Your task to perform on an android device: Open the contacts app Image 0: 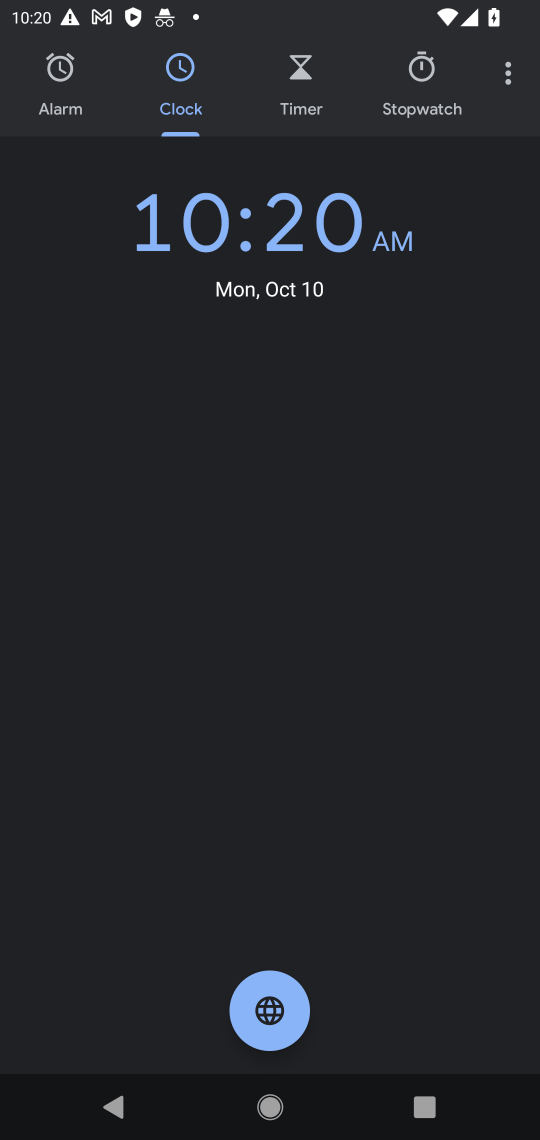
Step 0: press home button
Your task to perform on an android device: Open the contacts app Image 1: 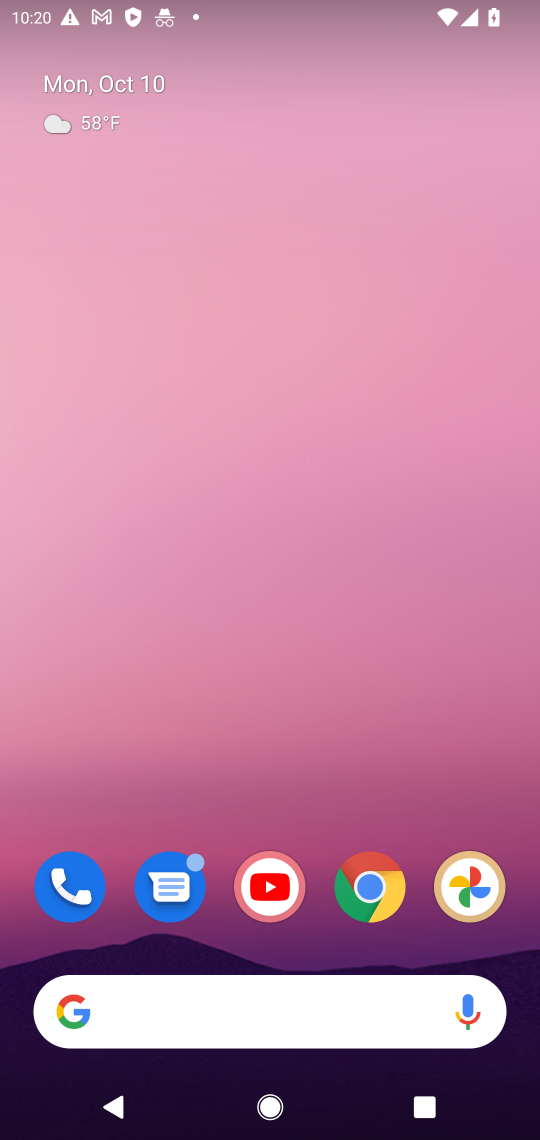
Step 1: drag from (261, 354) to (265, 264)
Your task to perform on an android device: Open the contacts app Image 2: 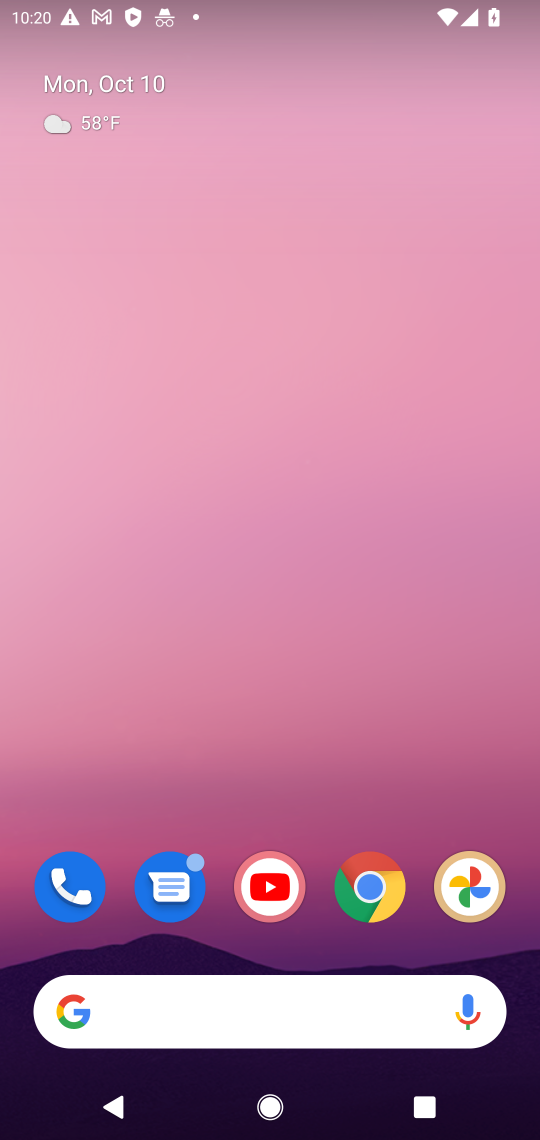
Step 2: drag from (251, 892) to (245, 300)
Your task to perform on an android device: Open the contacts app Image 3: 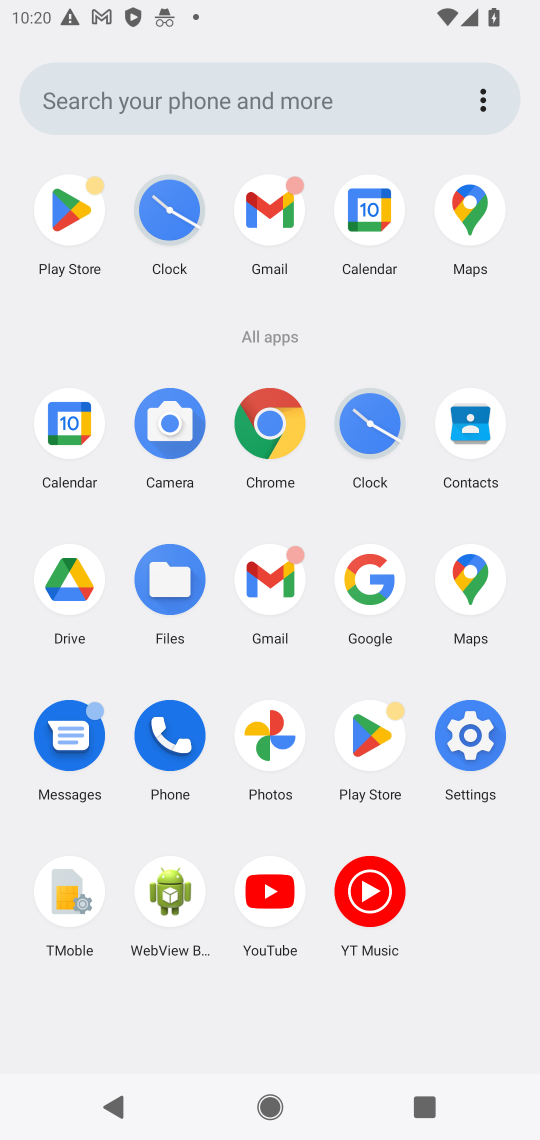
Step 3: click (453, 406)
Your task to perform on an android device: Open the contacts app Image 4: 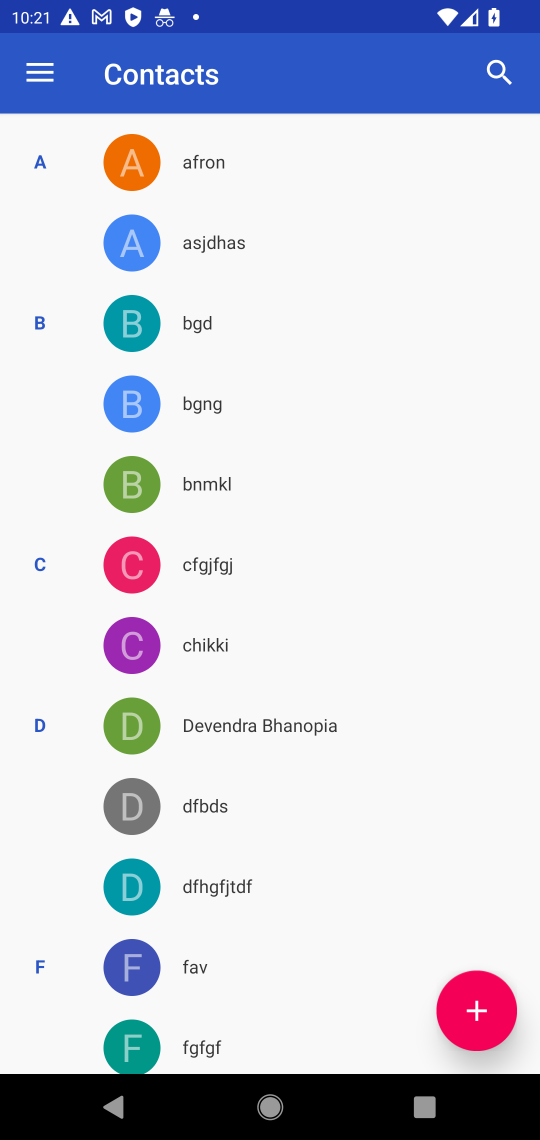
Step 4: task complete